Your task to perform on an android device: open app "PlayWell" Image 0: 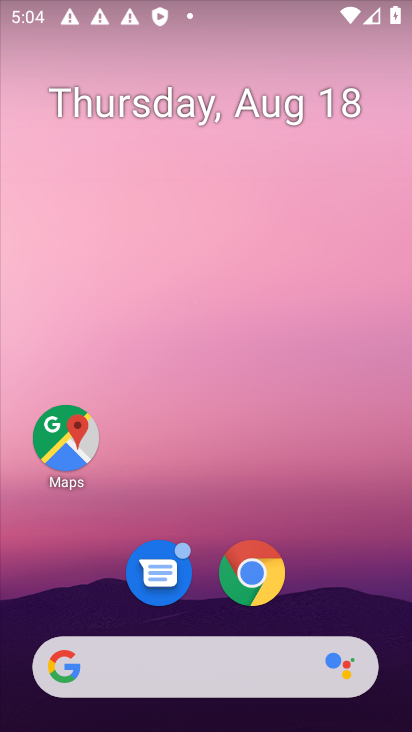
Step 0: drag from (180, 62) to (197, 10)
Your task to perform on an android device: open app "PlayWell" Image 1: 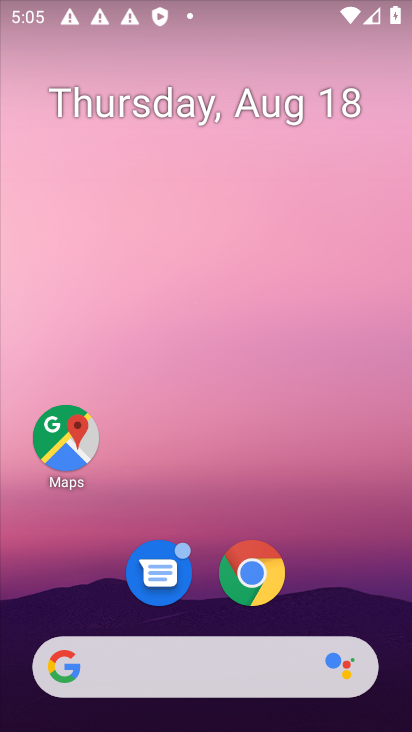
Step 1: drag from (202, 496) to (200, 106)
Your task to perform on an android device: open app "PlayWell" Image 2: 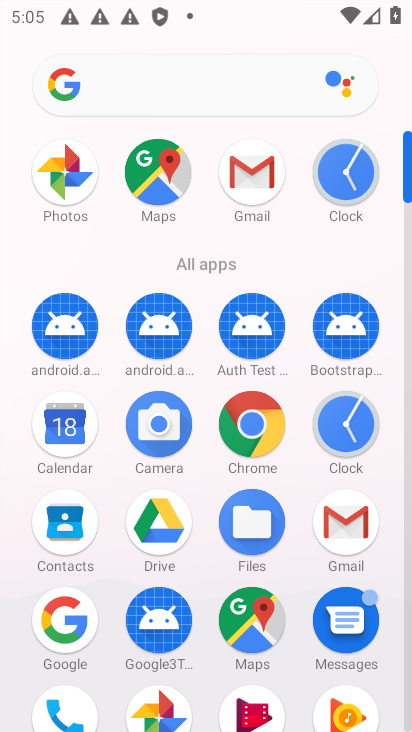
Step 2: click (138, 276)
Your task to perform on an android device: open app "PlayWell" Image 3: 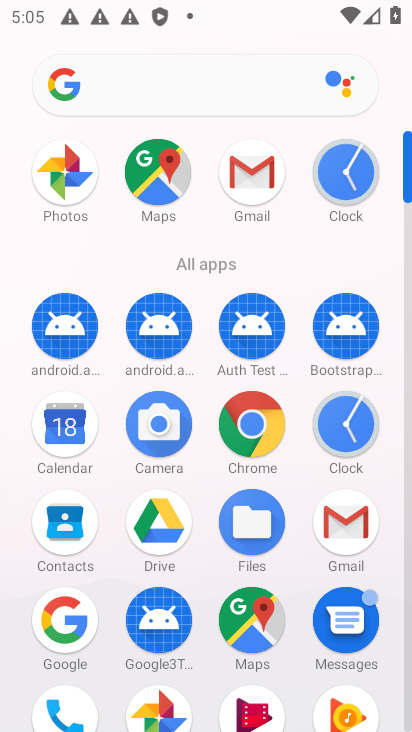
Step 3: drag from (217, 673) to (224, 350)
Your task to perform on an android device: open app "PlayWell" Image 4: 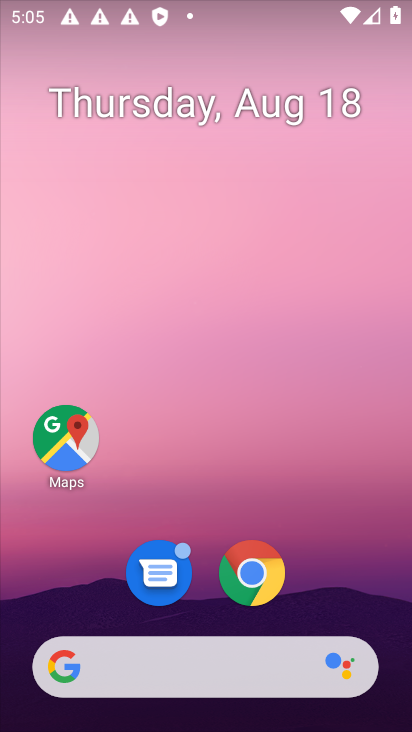
Step 4: drag from (293, 626) to (193, 607)
Your task to perform on an android device: open app "PlayWell" Image 5: 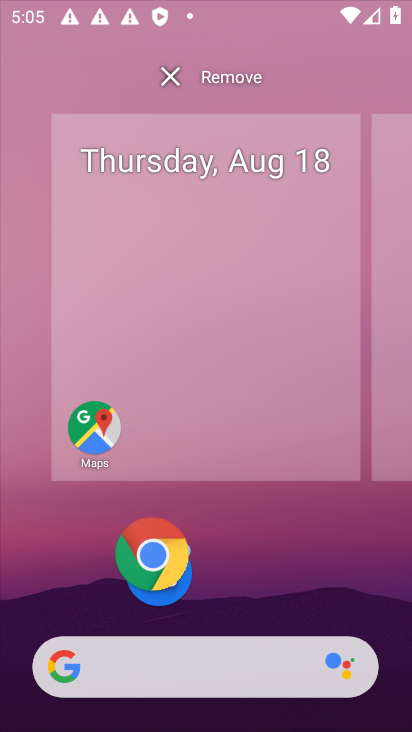
Step 5: drag from (193, 386) to (193, 15)
Your task to perform on an android device: open app "PlayWell" Image 6: 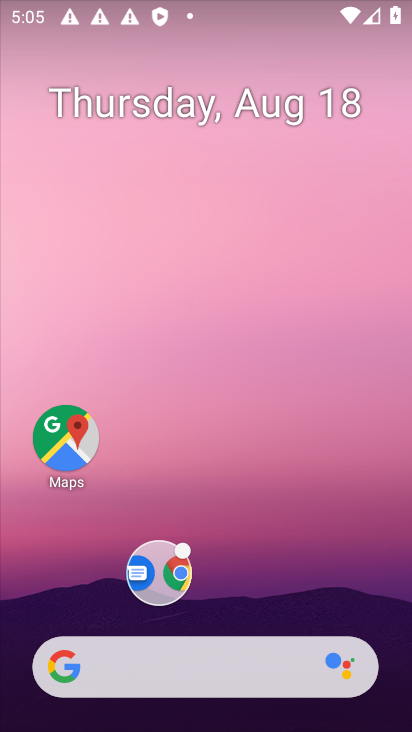
Step 6: drag from (206, 594) to (233, 131)
Your task to perform on an android device: open app "PlayWell" Image 7: 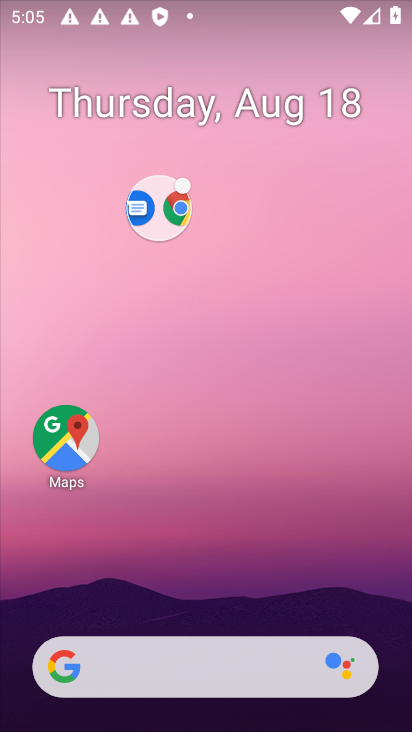
Step 7: drag from (254, 162) to (264, 66)
Your task to perform on an android device: open app "PlayWell" Image 8: 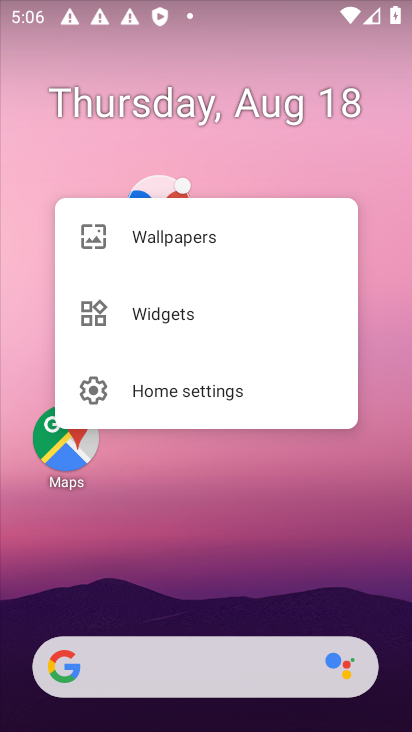
Step 8: click (244, 554)
Your task to perform on an android device: open app "PlayWell" Image 9: 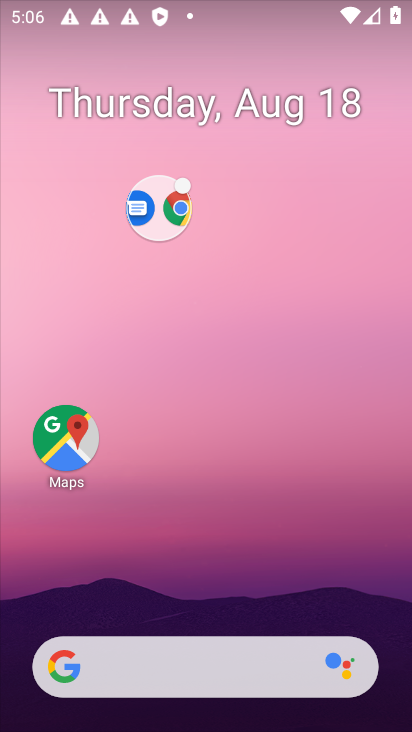
Step 9: drag from (244, 551) to (240, 29)
Your task to perform on an android device: open app "PlayWell" Image 10: 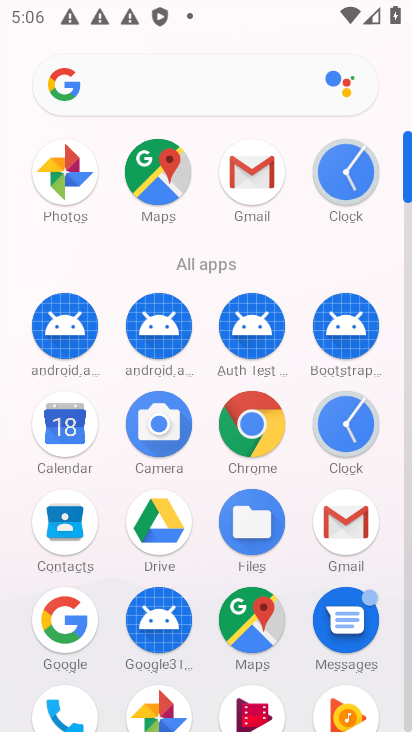
Step 10: drag from (189, 583) to (196, 283)
Your task to perform on an android device: open app "PlayWell" Image 11: 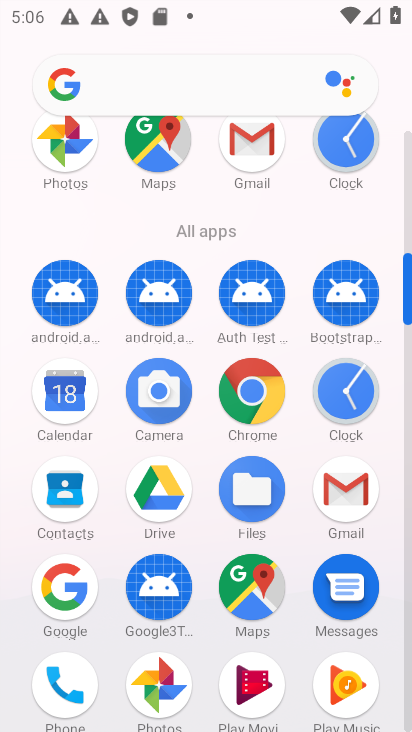
Step 11: drag from (287, 633) to (286, 179)
Your task to perform on an android device: open app "PlayWell" Image 12: 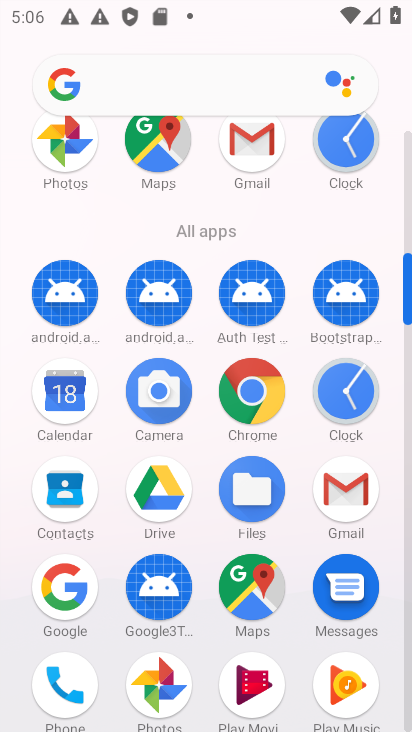
Step 12: drag from (226, 319) to (242, 207)
Your task to perform on an android device: open app "PlayWell" Image 13: 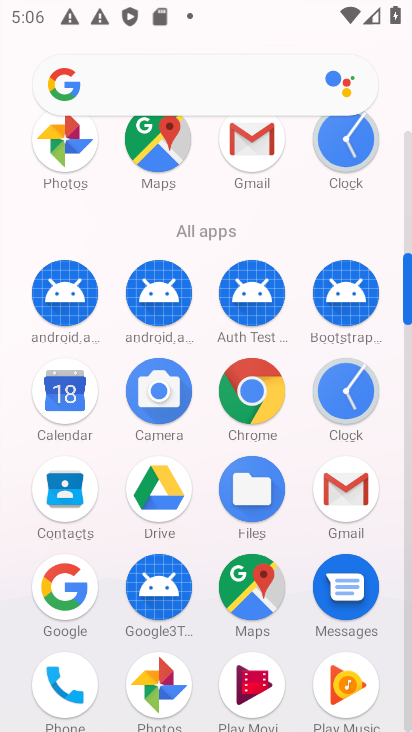
Step 13: drag from (201, 665) to (203, 120)
Your task to perform on an android device: open app "PlayWell" Image 14: 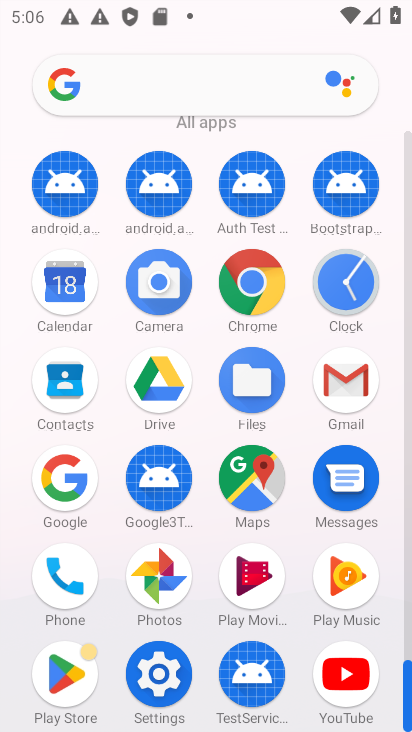
Step 14: click (70, 664)
Your task to perform on an android device: open app "PlayWell" Image 15: 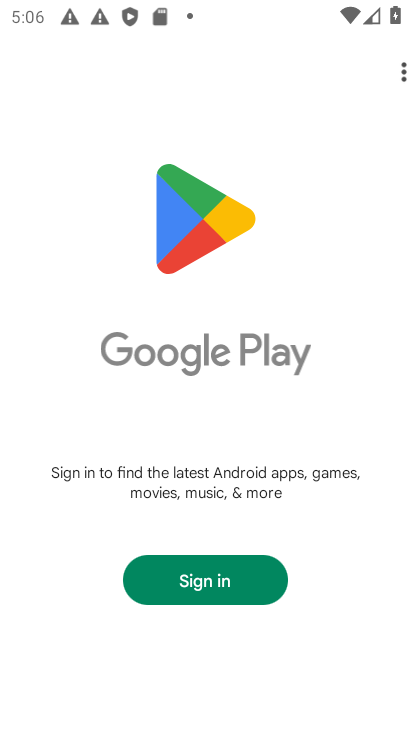
Step 15: click (236, 589)
Your task to perform on an android device: open app "PlayWell" Image 16: 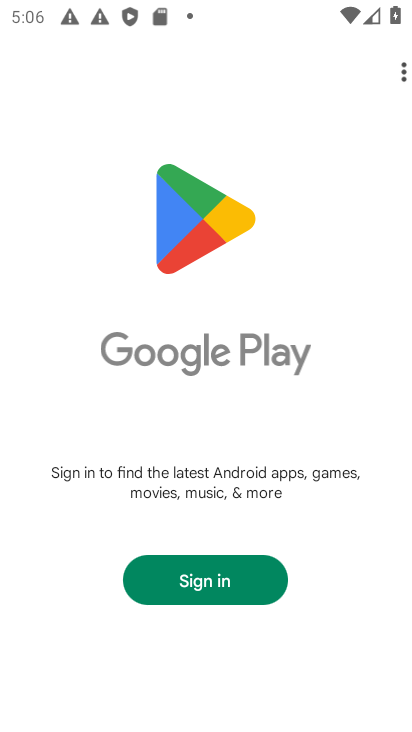
Step 16: task complete